Your task to perform on an android device: Open Google Chrome and open the bookmarks view Image 0: 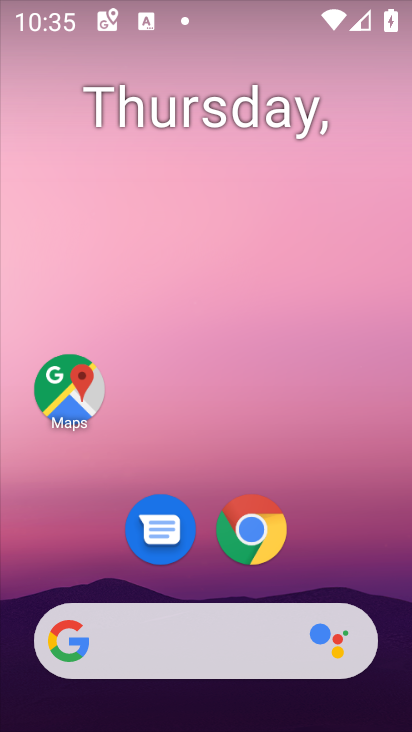
Step 0: drag from (217, 613) to (284, 242)
Your task to perform on an android device: Open Google Chrome and open the bookmarks view Image 1: 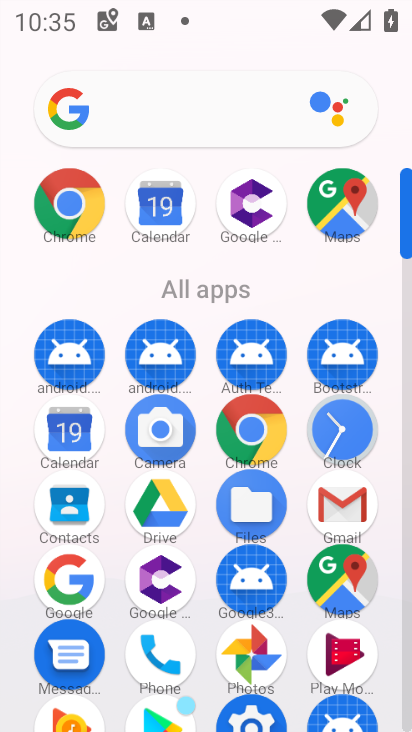
Step 1: click (81, 230)
Your task to perform on an android device: Open Google Chrome and open the bookmarks view Image 2: 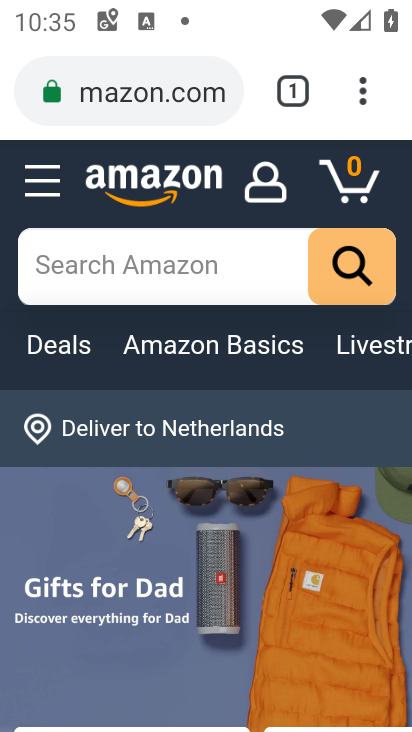
Step 2: click (363, 101)
Your task to perform on an android device: Open Google Chrome and open the bookmarks view Image 3: 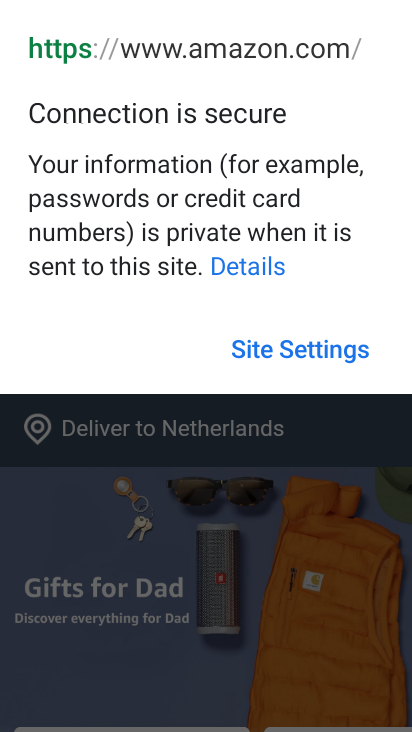
Step 3: click (237, 443)
Your task to perform on an android device: Open Google Chrome and open the bookmarks view Image 4: 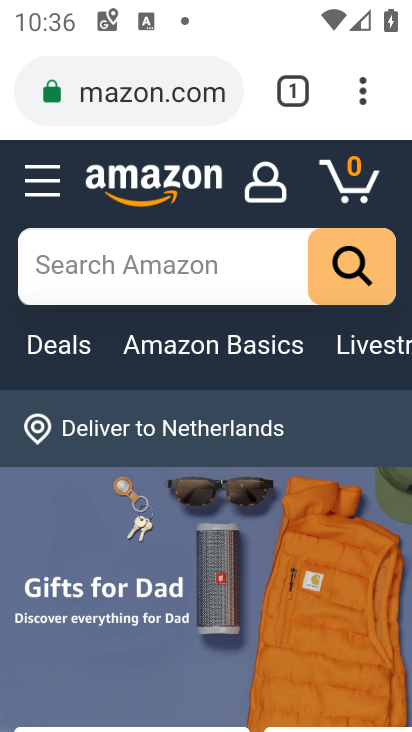
Step 4: click (348, 116)
Your task to perform on an android device: Open Google Chrome and open the bookmarks view Image 5: 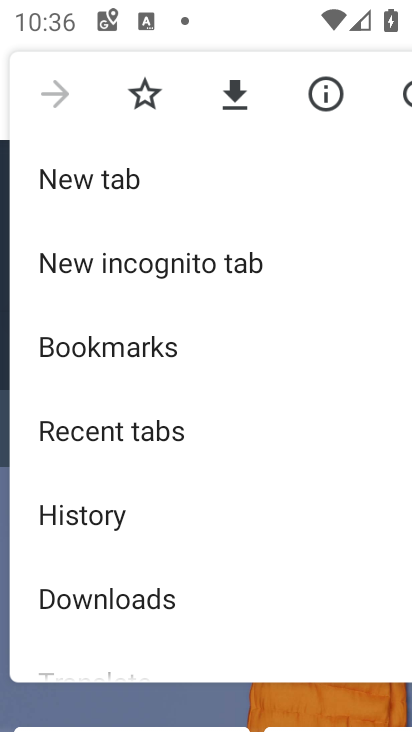
Step 5: drag from (101, 551) to (129, 148)
Your task to perform on an android device: Open Google Chrome and open the bookmarks view Image 6: 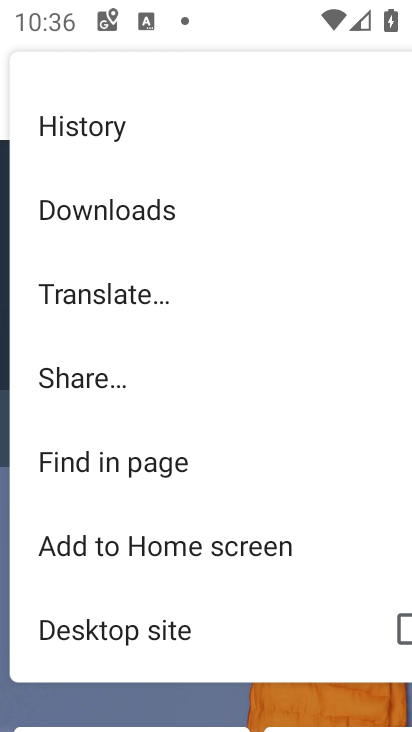
Step 6: drag from (156, 276) to (178, 721)
Your task to perform on an android device: Open Google Chrome and open the bookmarks view Image 7: 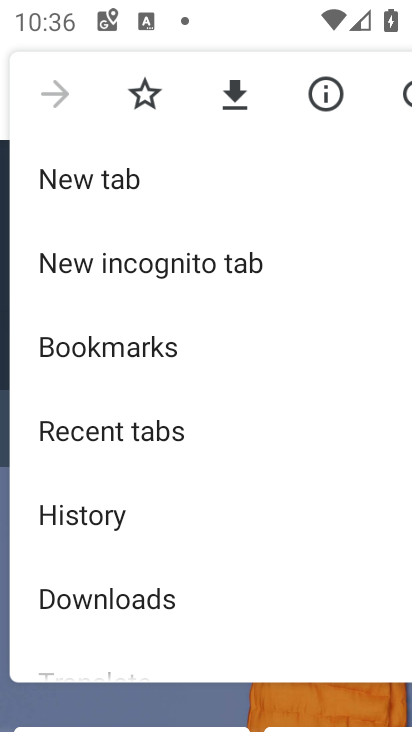
Step 7: click (179, 356)
Your task to perform on an android device: Open Google Chrome and open the bookmarks view Image 8: 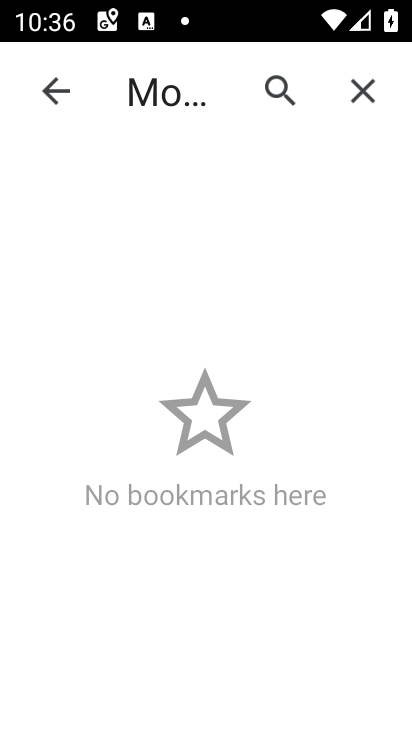
Step 8: task complete